Your task to perform on an android device: Open wifi settings Image 0: 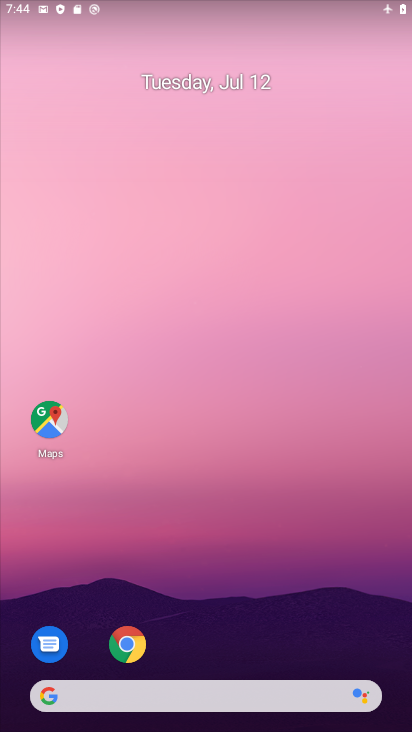
Step 0: drag from (210, 644) to (215, 141)
Your task to perform on an android device: Open wifi settings Image 1: 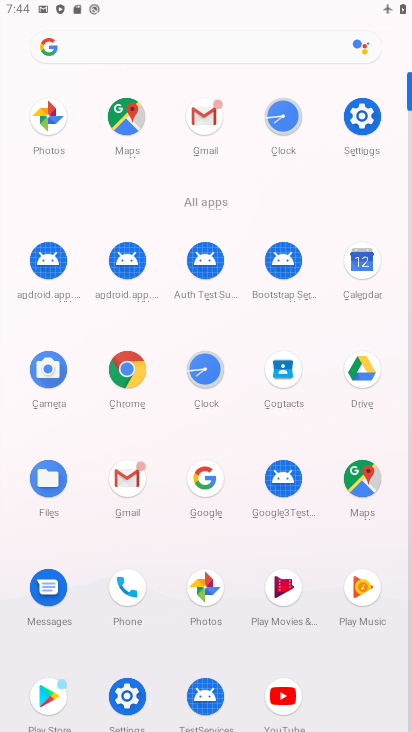
Step 1: click (363, 118)
Your task to perform on an android device: Open wifi settings Image 2: 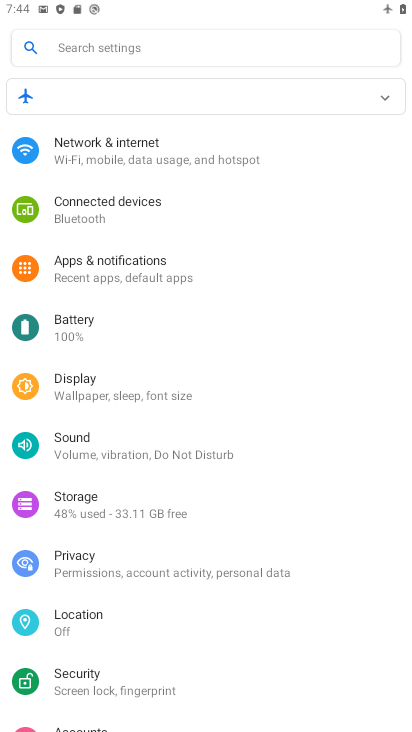
Step 2: click (156, 142)
Your task to perform on an android device: Open wifi settings Image 3: 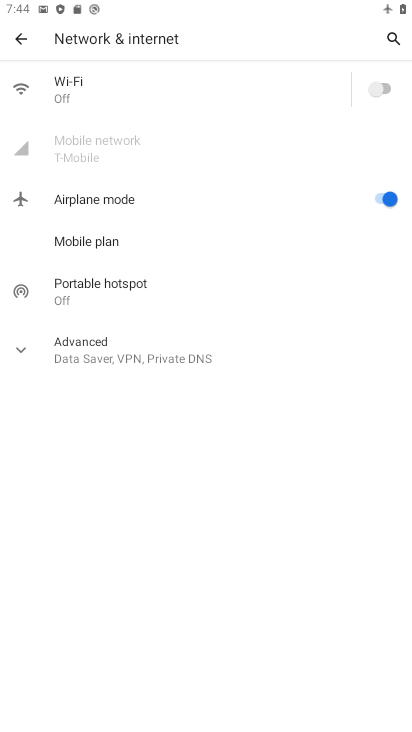
Step 3: click (139, 86)
Your task to perform on an android device: Open wifi settings Image 4: 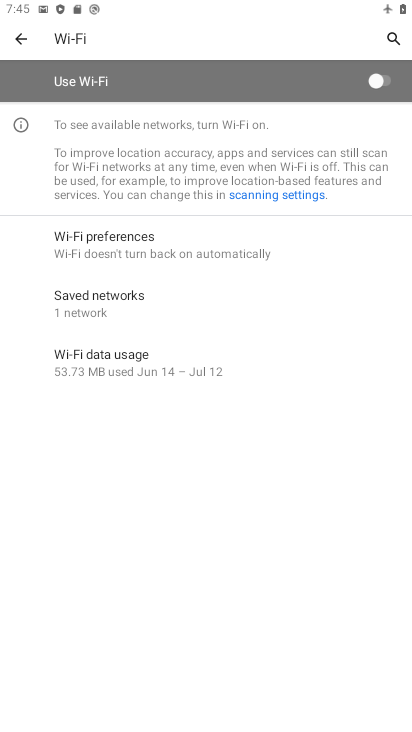
Step 4: task complete